Your task to perform on an android device: Go to Google maps Image 0: 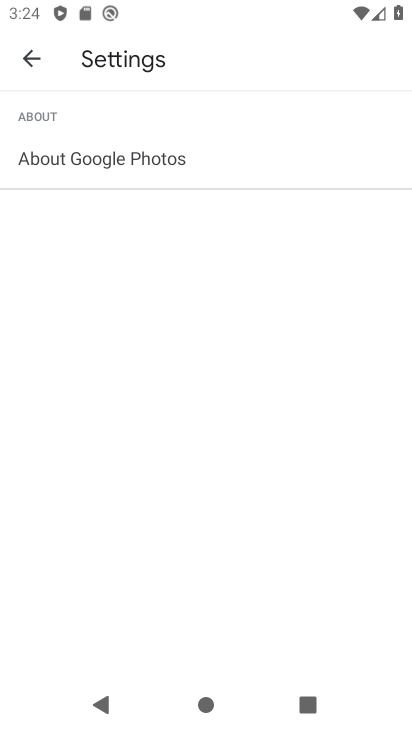
Step 0: press home button
Your task to perform on an android device: Go to Google maps Image 1: 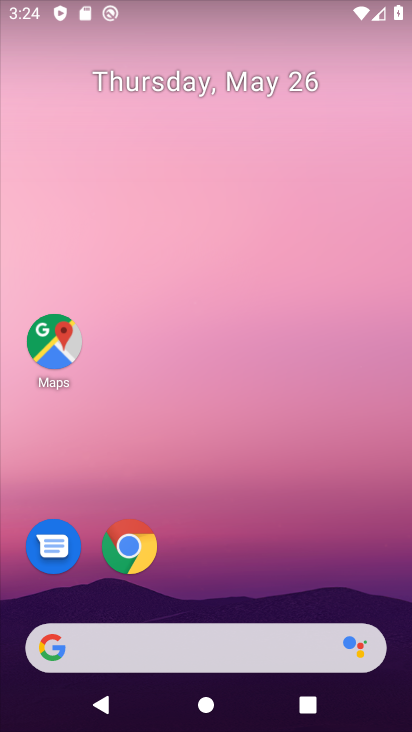
Step 1: click (71, 342)
Your task to perform on an android device: Go to Google maps Image 2: 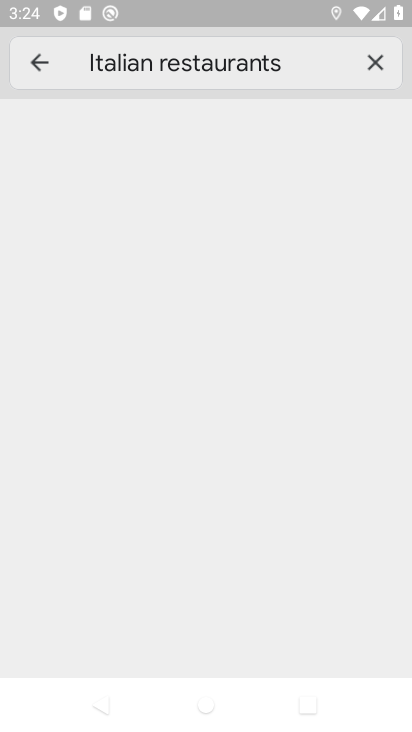
Step 2: task complete